Your task to perform on an android device: When is my next appointment? Image 0: 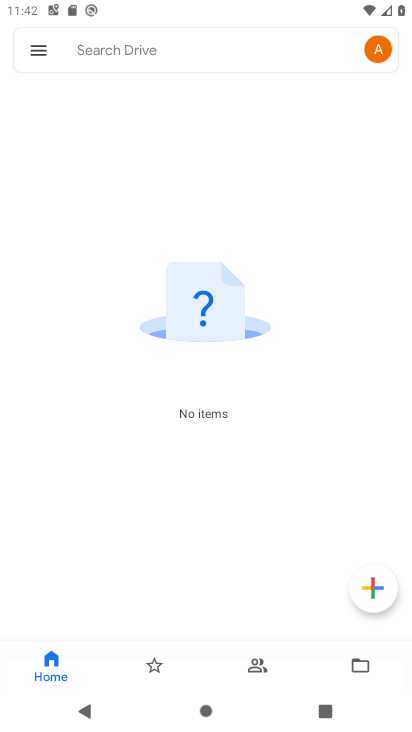
Step 0: press home button
Your task to perform on an android device: When is my next appointment? Image 1: 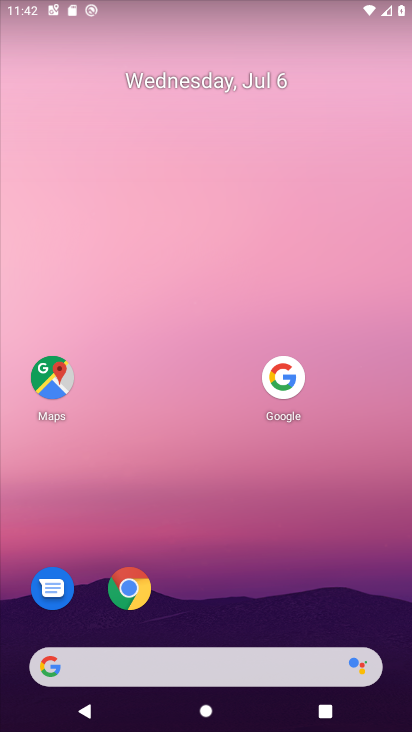
Step 1: drag from (192, 659) to (344, 89)
Your task to perform on an android device: When is my next appointment? Image 2: 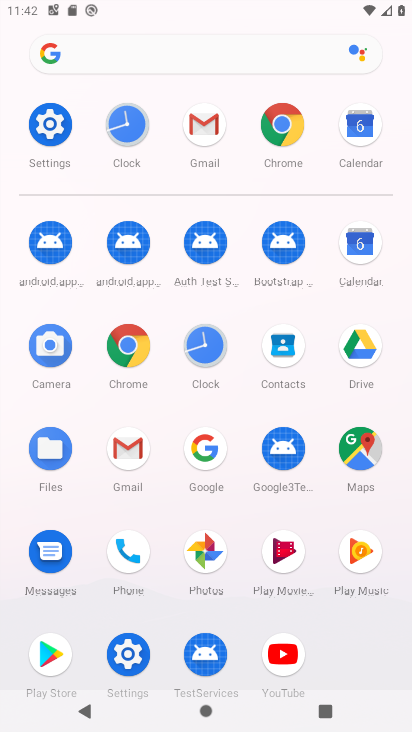
Step 2: click (360, 247)
Your task to perform on an android device: When is my next appointment? Image 3: 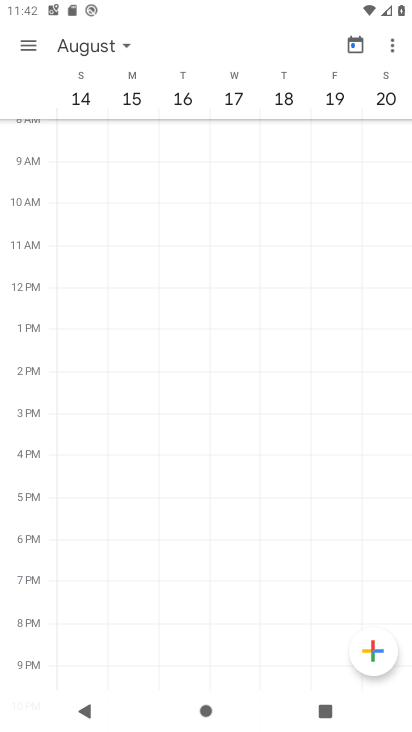
Step 3: click (105, 50)
Your task to perform on an android device: When is my next appointment? Image 4: 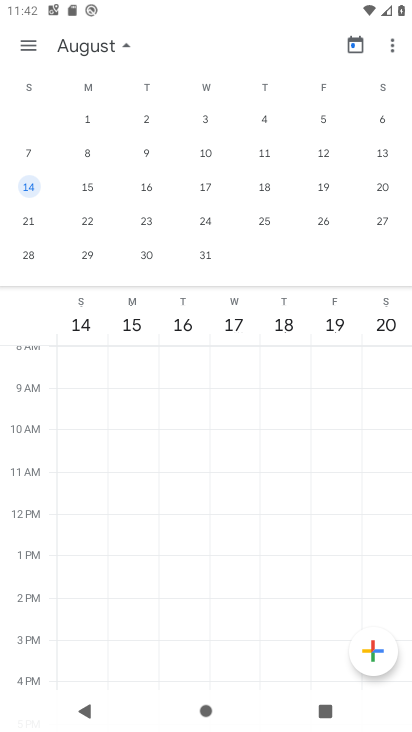
Step 4: drag from (64, 189) to (370, 204)
Your task to perform on an android device: When is my next appointment? Image 5: 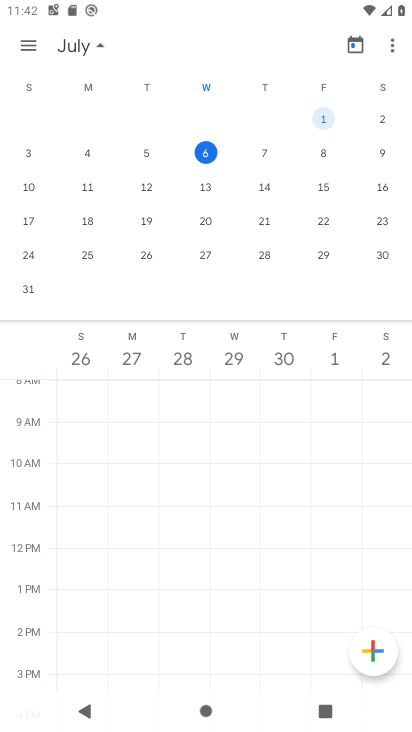
Step 5: click (209, 147)
Your task to perform on an android device: When is my next appointment? Image 6: 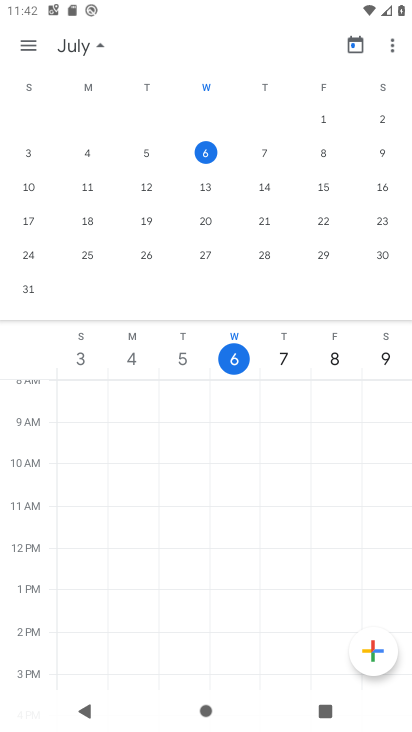
Step 6: click (36, 43)
Your task to perform on an android device: When is my next appointment? Image 7: 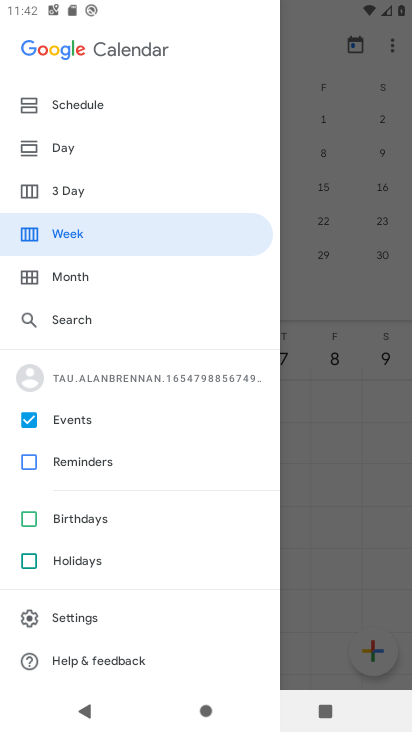
Step 7: click (34, 461)
Your task to perform on an android device: When is my next appointment? Image 8: 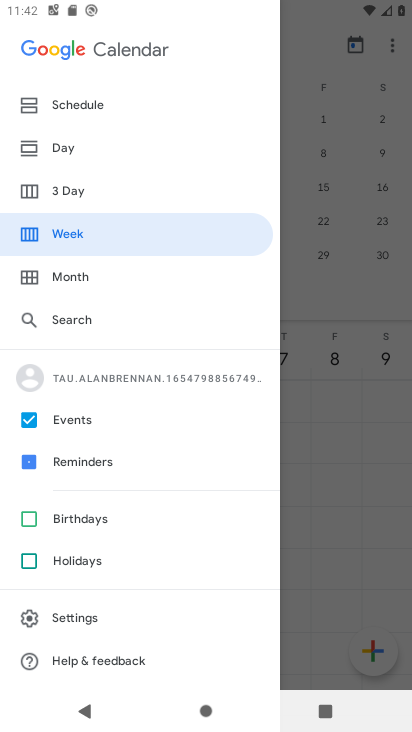
Step 8: click (26, 514)
Your task to perform on an android device: When is my next appointment? Image 9: 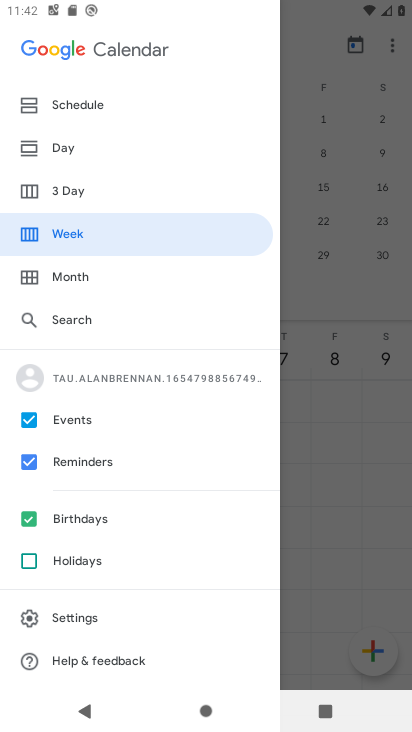
Step 9: click (33, 564)
Your task to perform on an android device: When is my next appointment? Image 10: 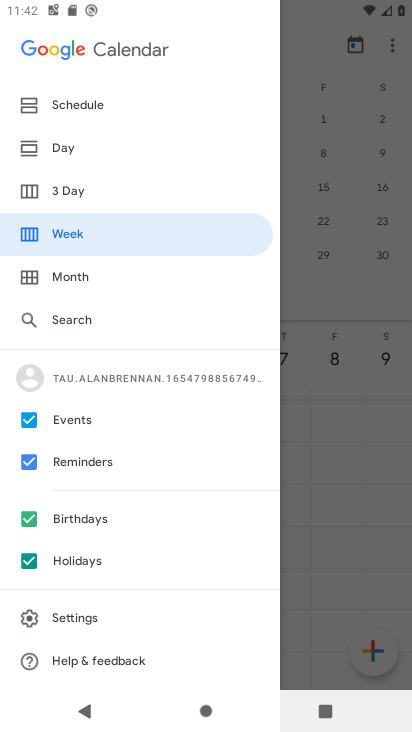
Step 10: drag from (93, 581) to (217, 361)
Your task to perform on an android device: When is my next appointment? Image 11: 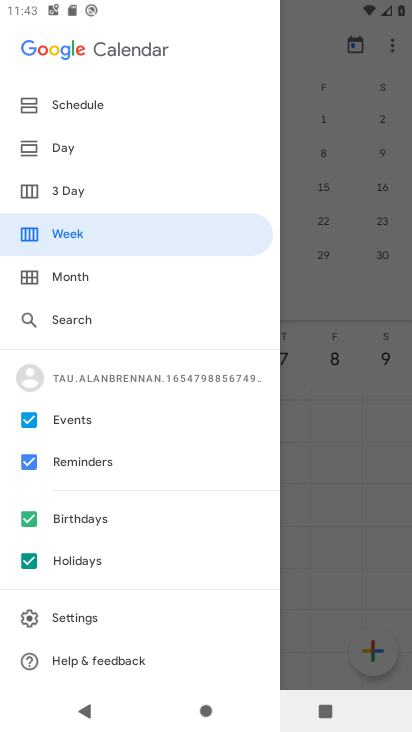
Step 11: click (84, 108)
Your task to perform on an android device: When is my next appointment? Image 12: 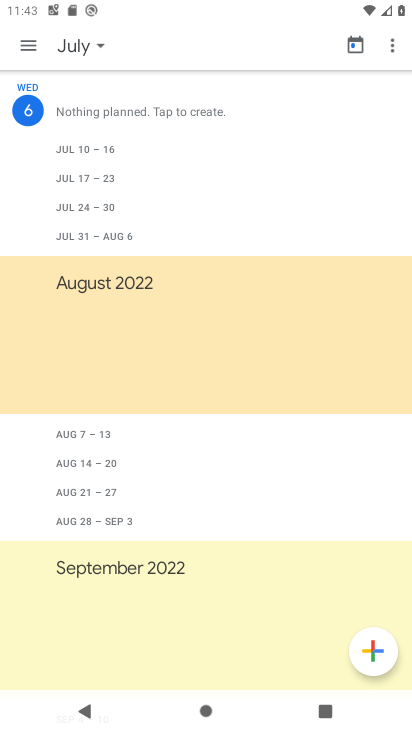
Step 12: task complete